Your task to perform on an android device: toggle javascript in the chrome app Image 0: 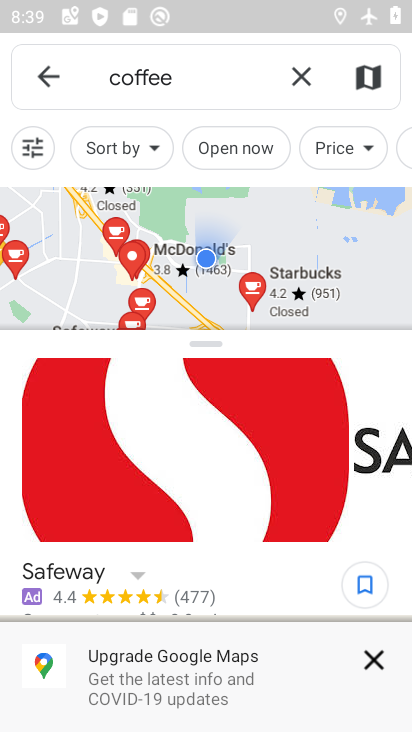
Step 0: press home button
Your task to perform on an android device: toggle javascript in the chrome app Image 1: 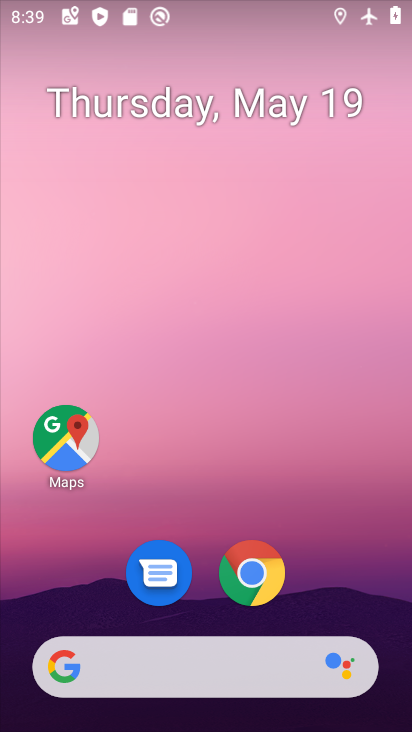
Step 1: click (252, 571)
Your task to perform on an android device: toggle javascript in the chrome app Image 2: 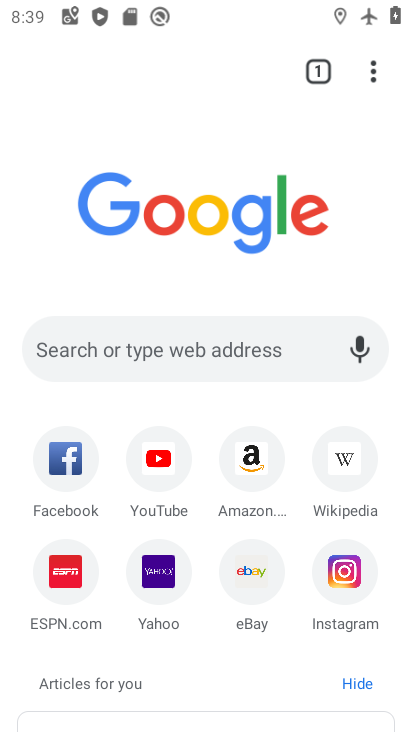
Step 2: click (377, 81)
Your task to perform on an android device: toggle javascript in the chrome app Image 3: 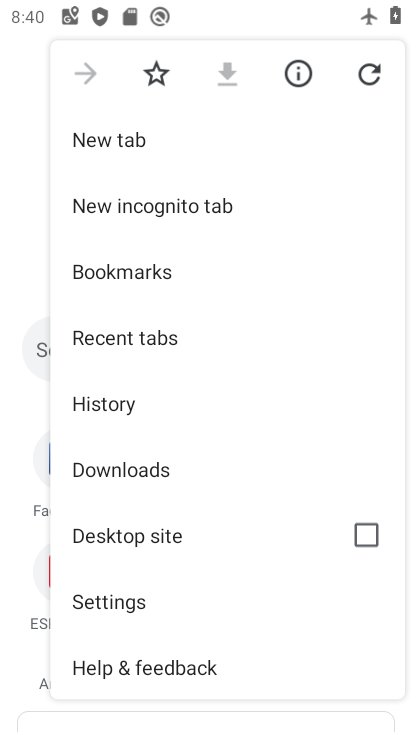
Step 3: click (135, 604)
Your task to perform on an android device: toggle javascript in the chrome app Image 4: 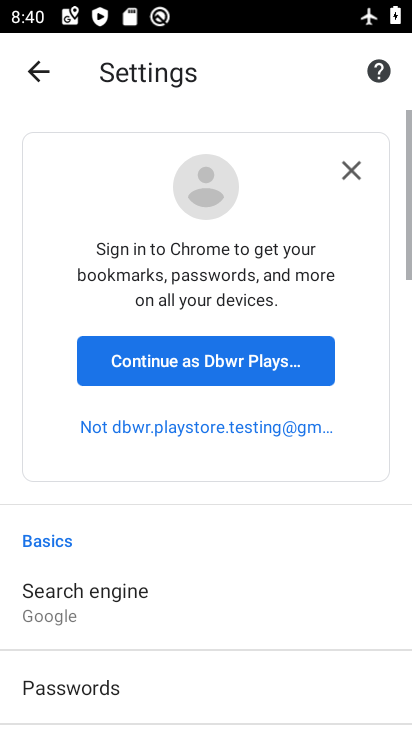
Step 4: drag from (188, 606) to (174, 78)
Your task to perform on an android device: toggle javascript in the chrome app Image 5: 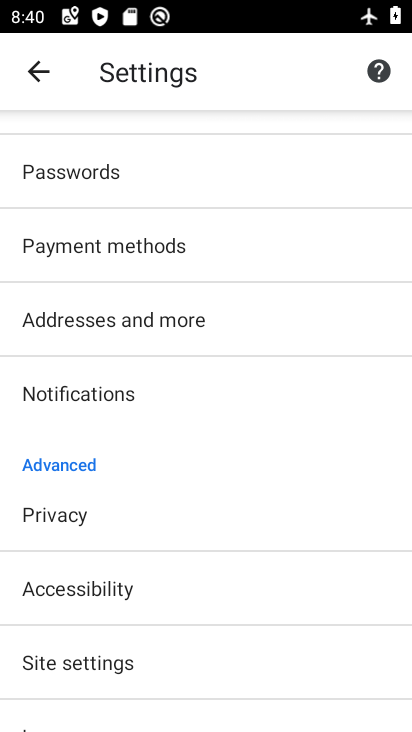
Step 5: drag from (174, 532) to (179, 260)
Your task to perform on an android device: toggle javascript in the chrome app Image 6: 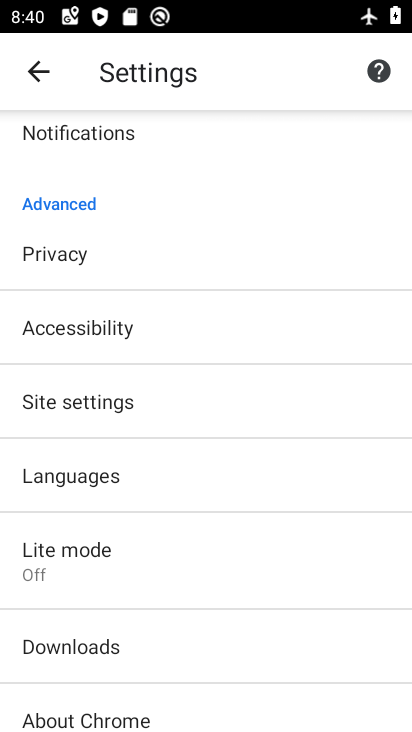
Step 6: click (78, 403)
Your task to perform on an android device: toggle javascript in the chrome app Image 7: 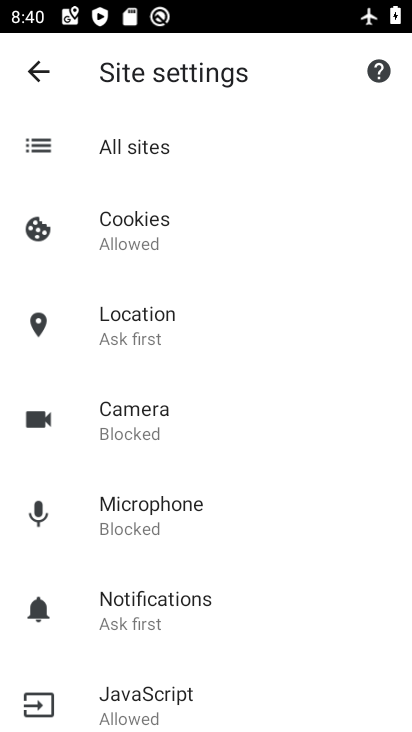
Step 7: click (146, 714)
Your task to perform on an android device: toggle javascript in the chrome app Image 8: 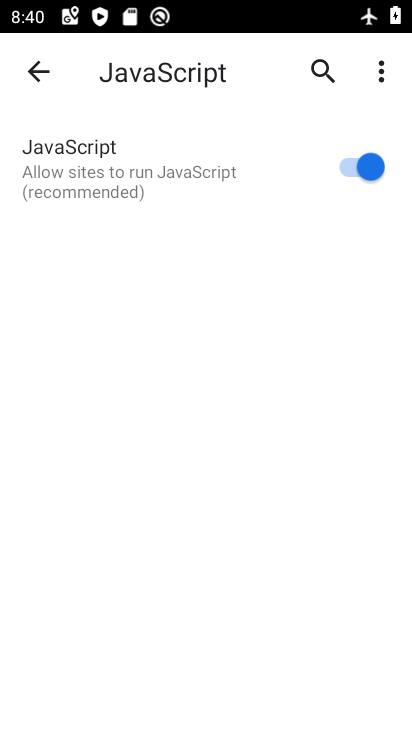
Step 8: click (355, 166)
Your task to perform on an android device: toggle javascript in the chrome app Image 9: 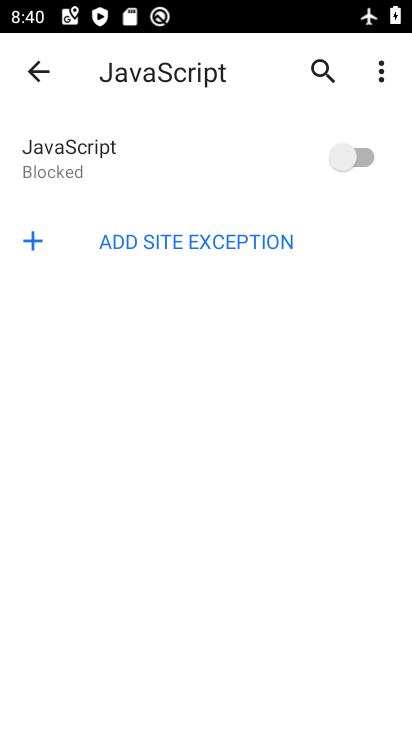
Step 9: task complete